Your task to perform on an android device: toggle sleep mode Image 0: 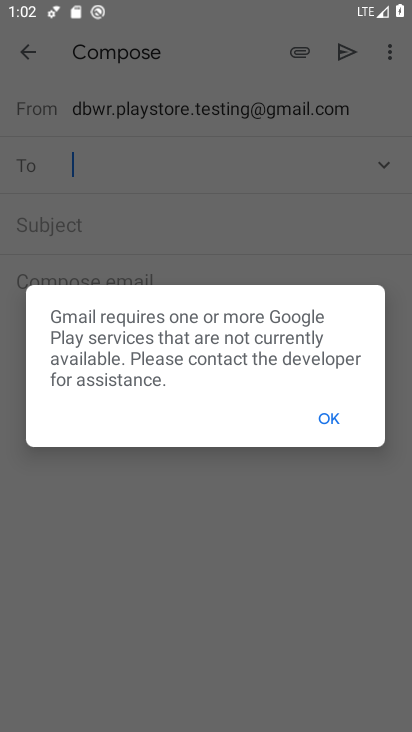
Step 0: press home button
Your task to perform on an android device: toggle sleep mode Image 1: 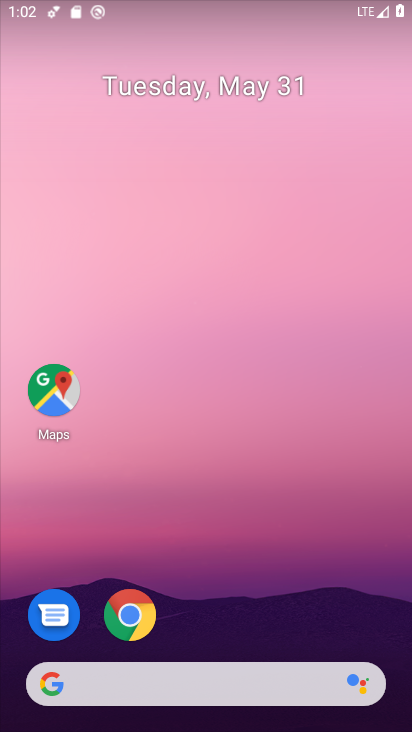
Step 1: drag from (219, 597) to (246, 413)
Your task to perform on an android device: toggle sleep mode Image 2: 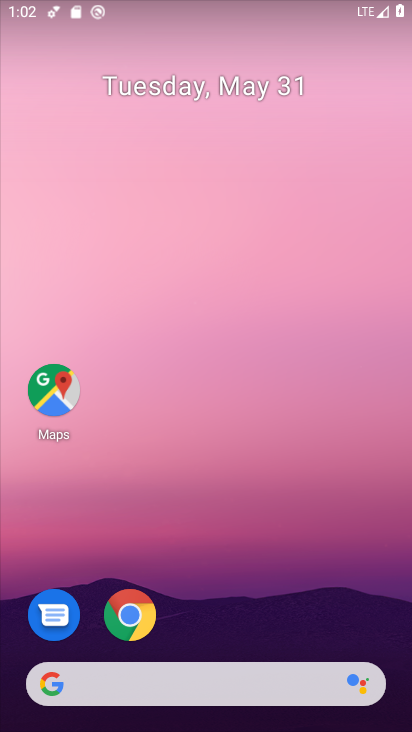
Step 2: drag from (237, 483) to (255, 23)
Your task to perform on an android device: toggle sleep mode Image 3: 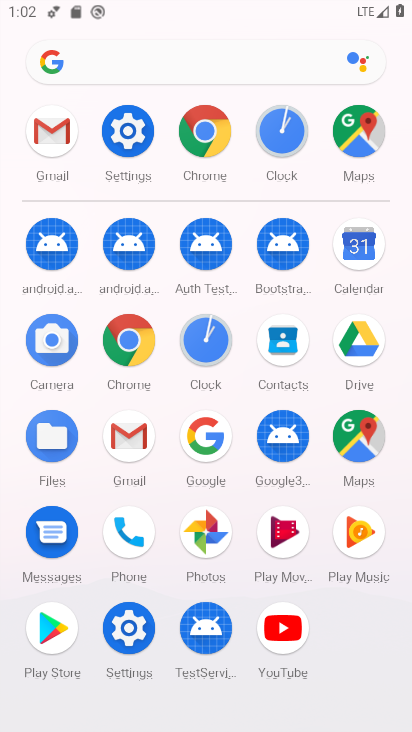
Step 3: click (129, 143)
Your task to perform on an android device: toggle sleep mode Image 4: 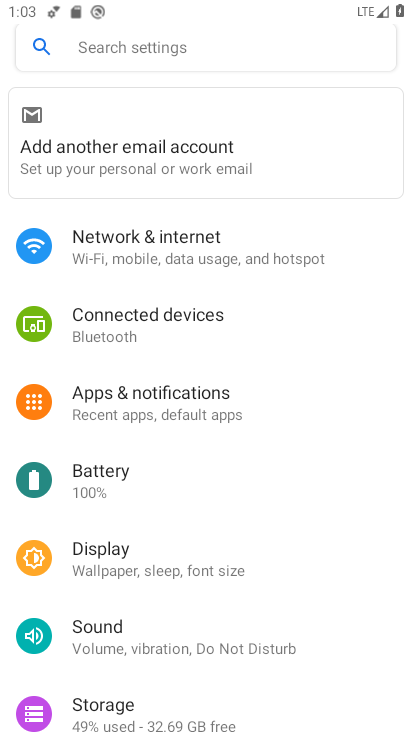
Step 4: click (153, 40)
Your task to perform on an android device: toggle sleep mode Image 5: 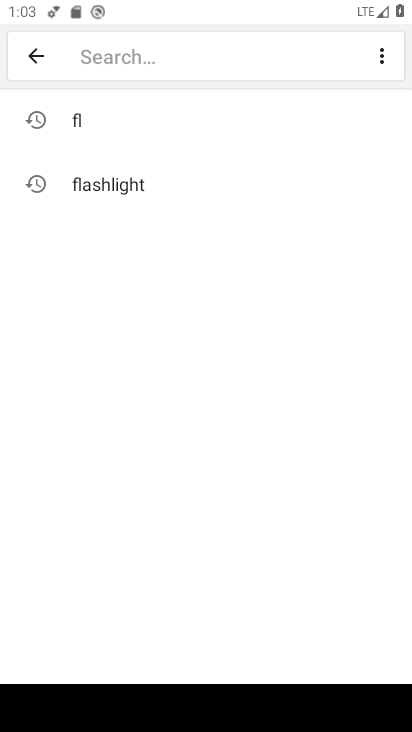
Step 5: type "sleep mode"
Your task to perform on an android device: toggle sleep mode Image 6: 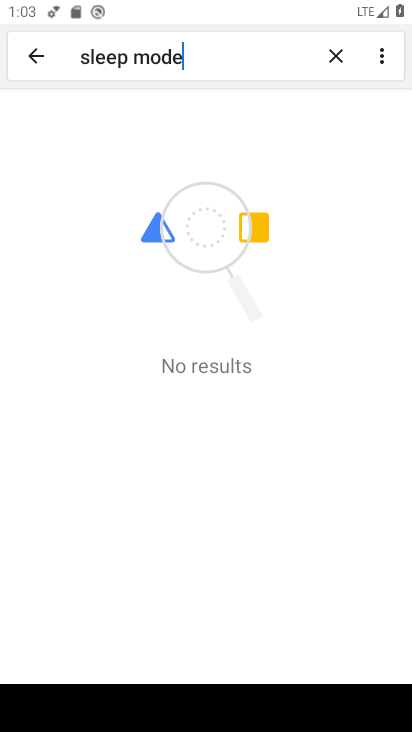
Step 6: task complete